Your task to perform on an android device: add a label to a message in the gmail app Image 0: 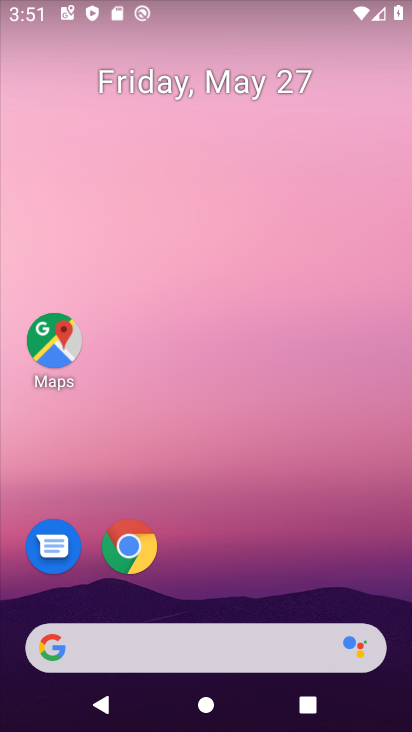
Step 0: drag from (225, 604) to (244, 96)
Your task to perform on an android device: add a label to a message in the gmail app Image 1: 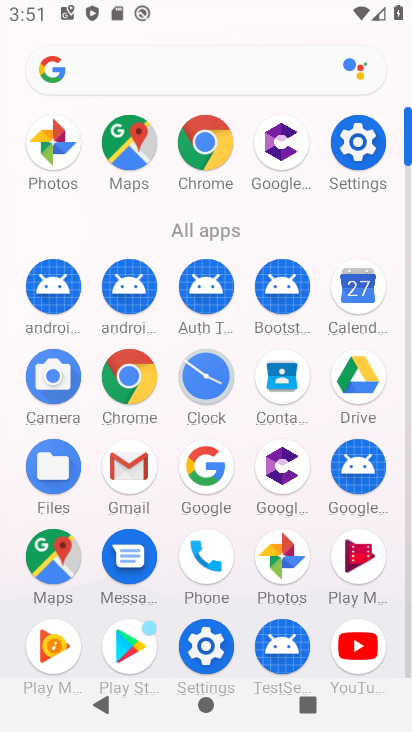
Step 1: click (131, 462)
Your task to perform on an android device: add a label to a message in the gmail app Image 2: 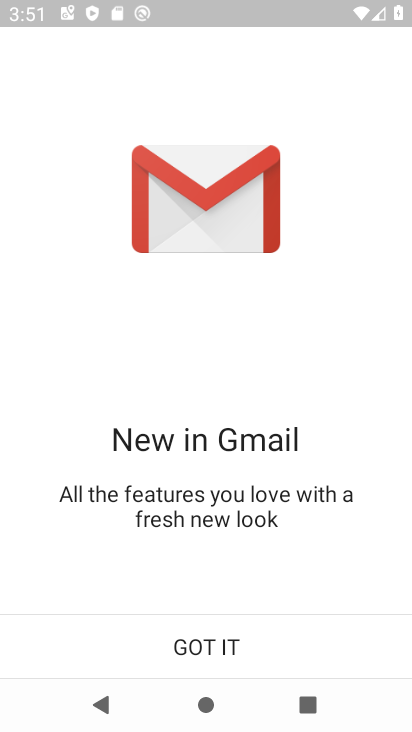
Step 2: click (212, 652)
Your task to perform on an android device: add a label to a message in the gmail app Image 3: 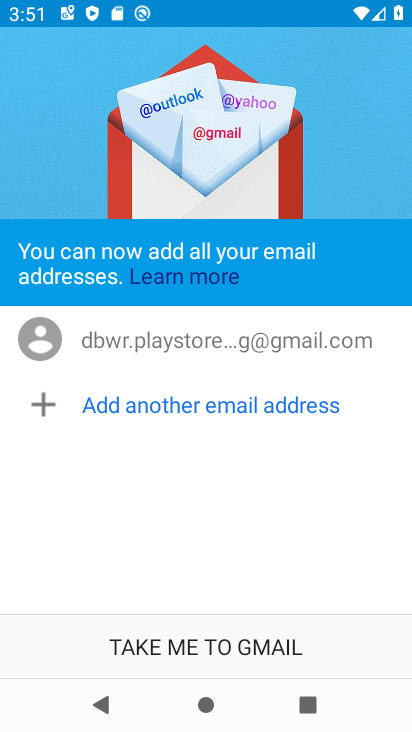
Step 3: click (198, 660)
Your task to perform on an android device: add a label to a message in the gmail app Image 4: 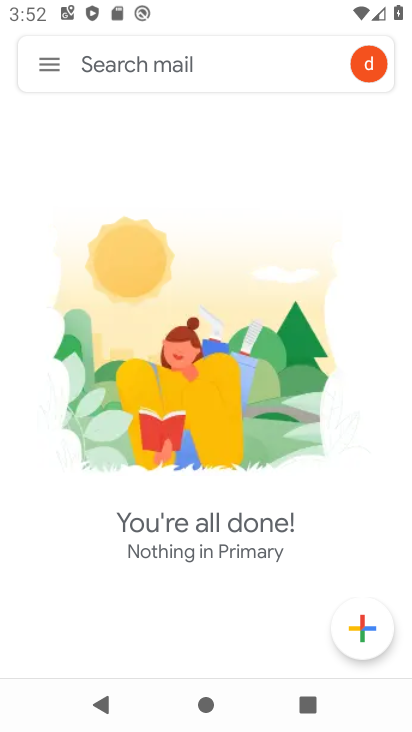
Step 4: click (41, 59)
Your task to perform on an android device: add a label to a message in the gmail app Image 5: 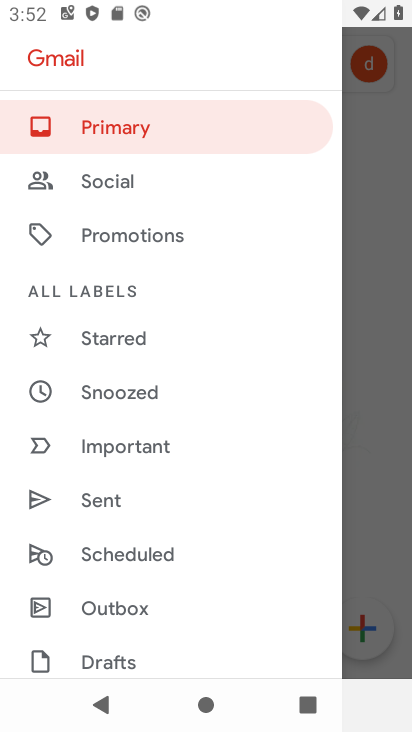
Step 5: drag from (119, 642) to (114, 278)
Your task to perform on an android device: add a label to a message in the gmail app Image 6: 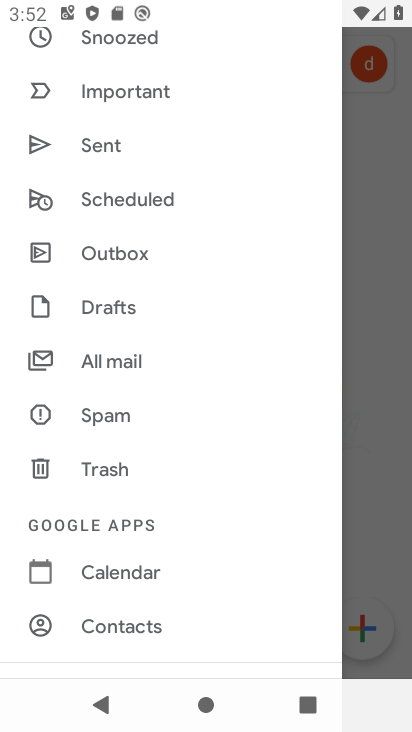
Step 6: click (154, 355)
Your task to perform on an android device: add a label to a message in the gmail app Image 7: 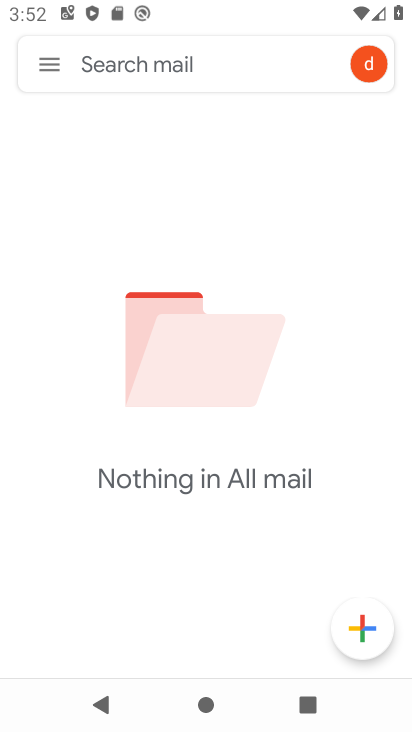
Step 7: task complete